Your task to perform on an android device: Open internet settings Image 0: 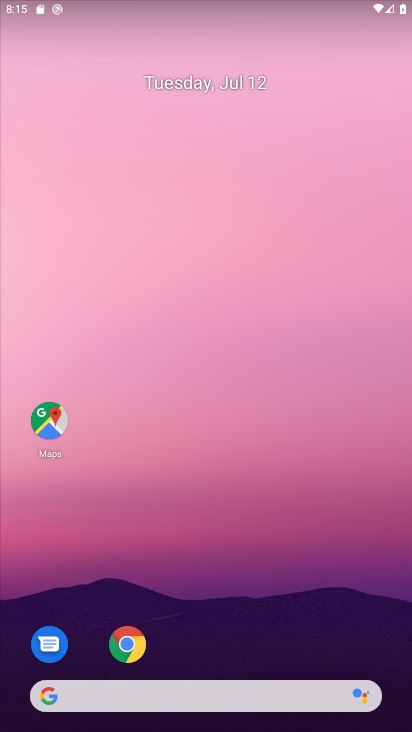
Step 0: drag from (354, 609) to (362, 119)
Your task to perform on an android device: Open internet settings Image 1: 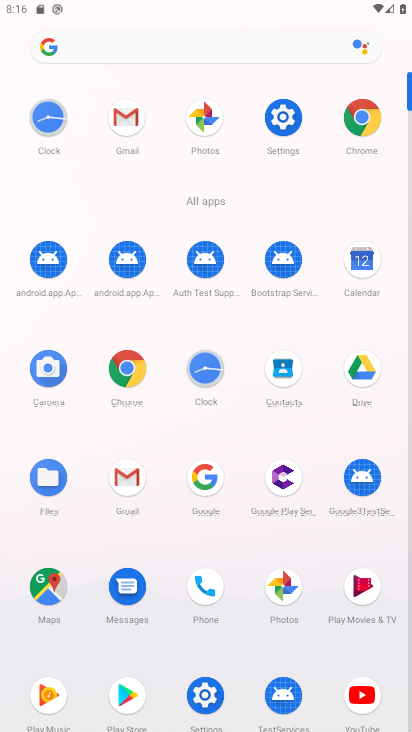
Step 1: click (276, 110)
Your task to perform on an android device: Open internet settings Image 2: 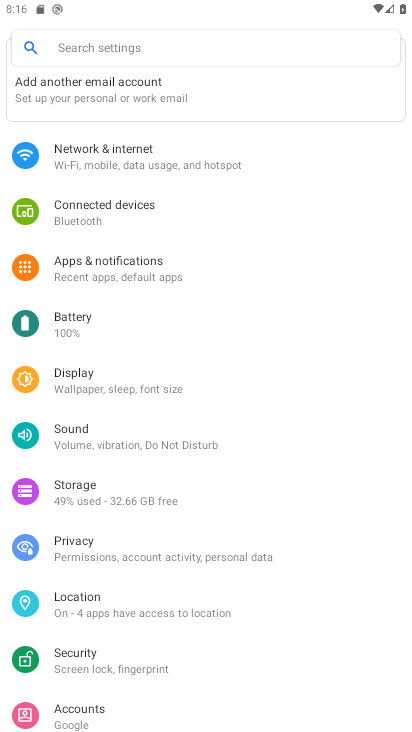
Step 2: click (118, 156)
Your task to perform on an android device: Open internet settings Image 3: 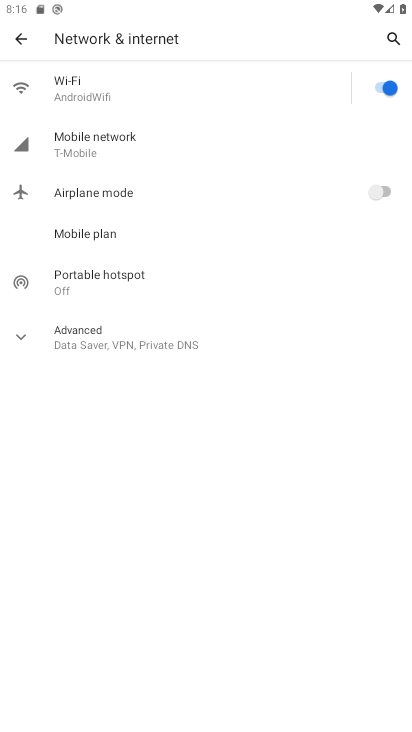
Step 3: click (70, 132)
Your task to perform on an android device: Open internet settings Image 4: 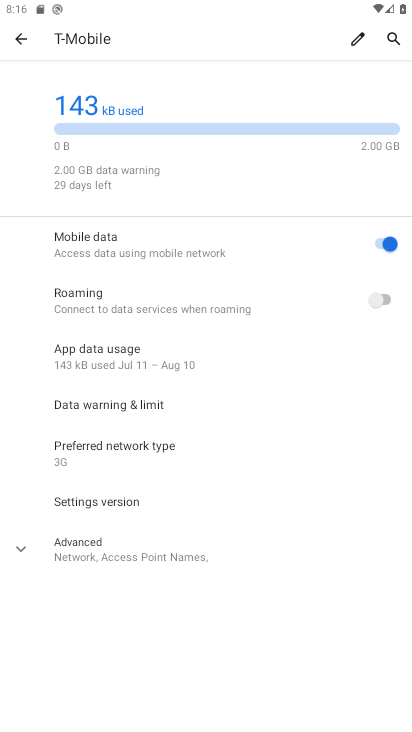
Step 4: task complete